Your task to perform on an android device: Go to calendar. Show me events next week Image 0: 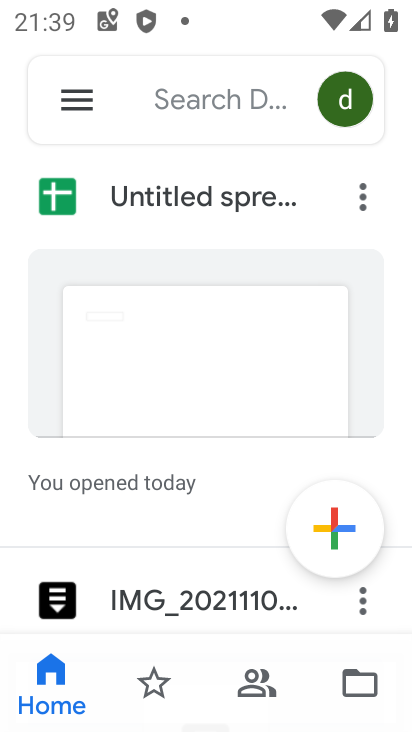
Step 0: press home button
Your task to perform on an android device: Go to calendar. Show me events next week Image 1: 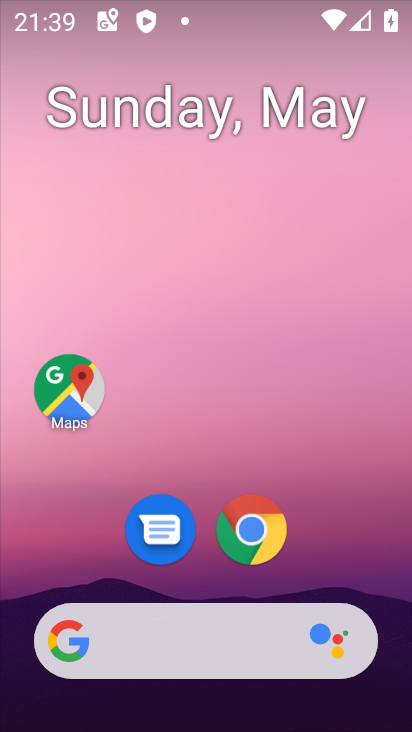
Step 1: drag from (299, 552) to (291, 65)
Your task to perform on an android device: Go to calendar. Show me events next week Image 2: 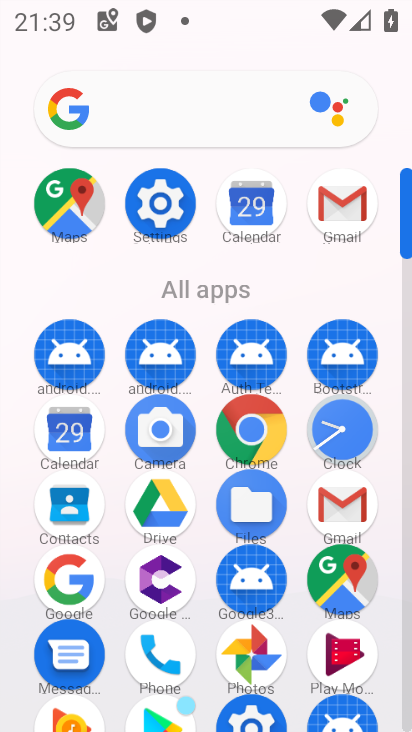
Step 2: click (68, 430)
Your task to perform on an android device: Go to calendar. Show me events next week Image 3: 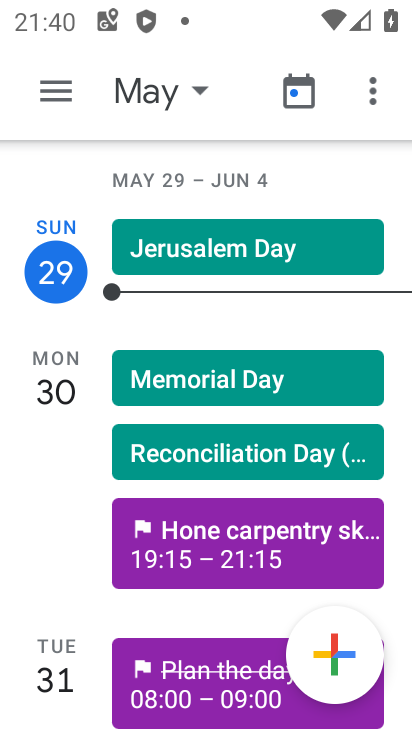
Step 3: click (150, 102)
Your task to perform on an android device: Go to calendar. Show me events next week Image 4: 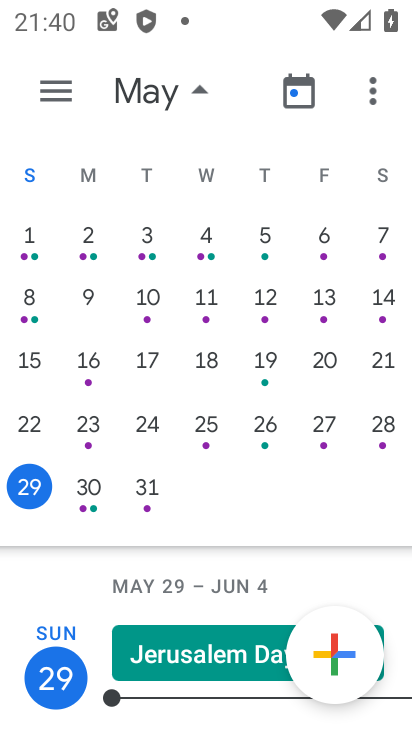
Step 4: drag from (373, 396) to (11, 386)
Your task to perform on an android device: Go to calendar. Show me events next week Image 5: 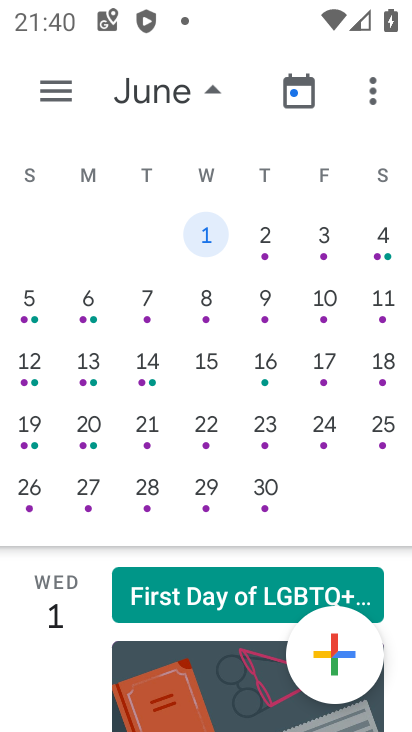
Step 5: click (40, 314)
Your task to perform on an android device: Go to calendar. Show me events next week Image 6: 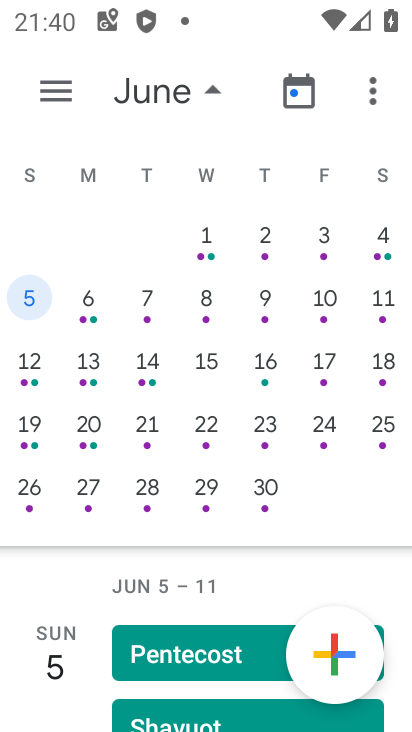
Step 6: task complete